Your task to perform on an android device: Check the weather Image 0: 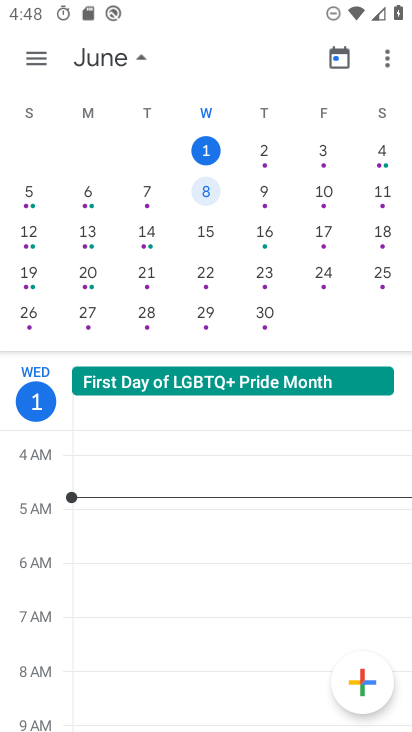
Step 0: press back button
Your task to perform on an android device: Check the weather Image 1: 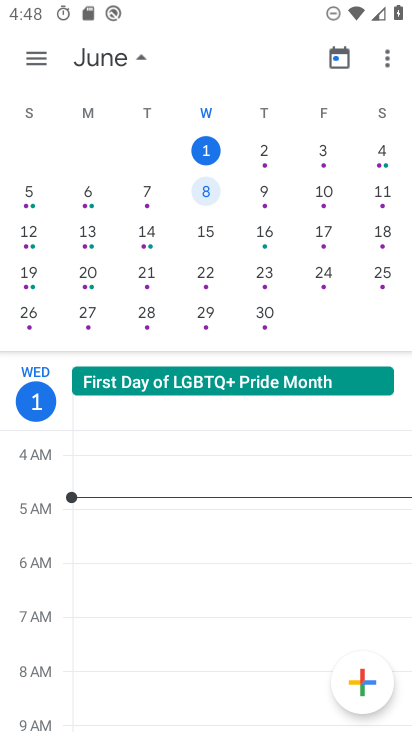
Step 1: press back button
Your task to perform on an android device: Check the weather Image 2: 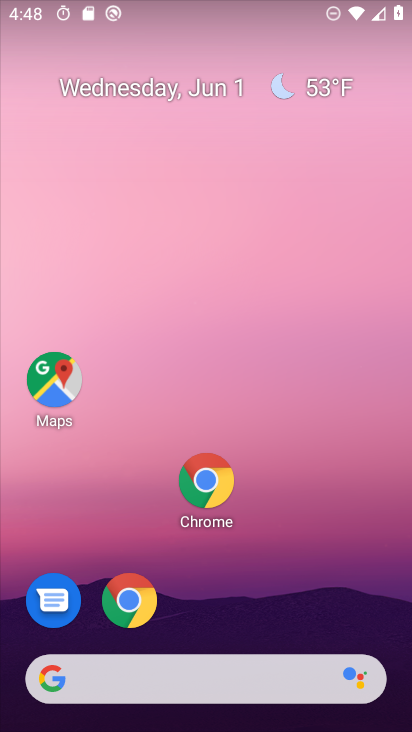
Step 2: drag from (177, 550) to (97, 12)
Your task to perform on an android device: Check the weather Image 3: 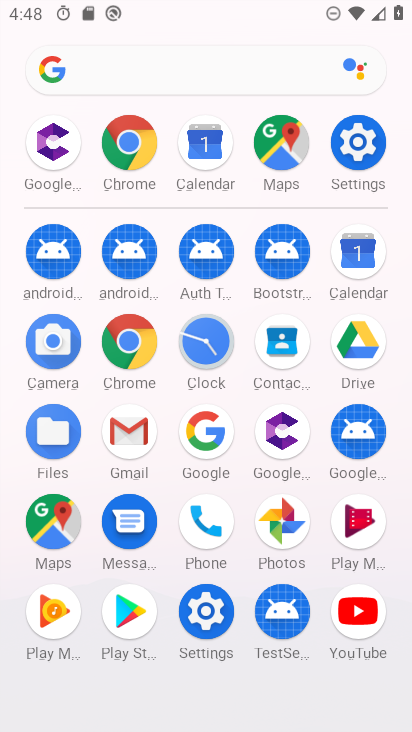
Step 3: drag from (218, 581) to (189, 21)
Your task to perform on an android device: Check the weather Image 4: 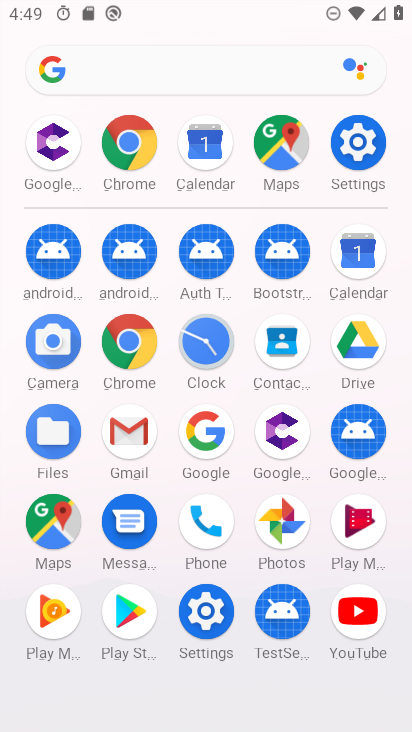
Step 4: press home button
Your task to perform on an android device: Check the weather Image 5: 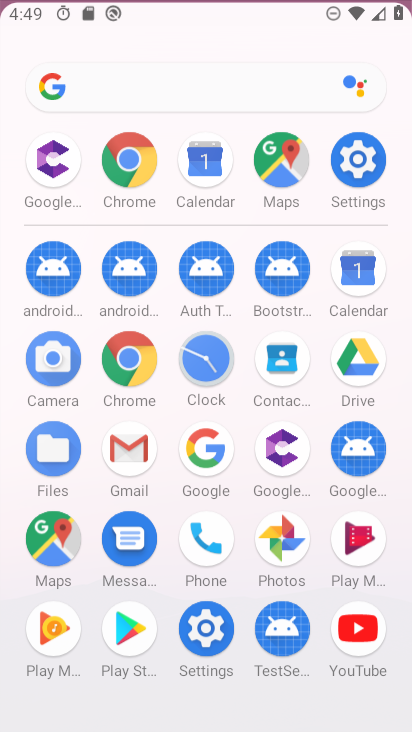
Step 5: press home button
Your task to perform on an android device: Check the weather Image 6: 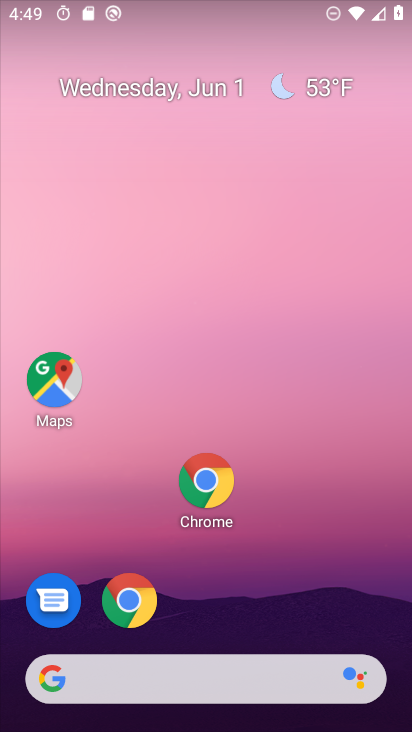
Step 6: press home button
Your task to perform on an android device: Check the weather Image 7: 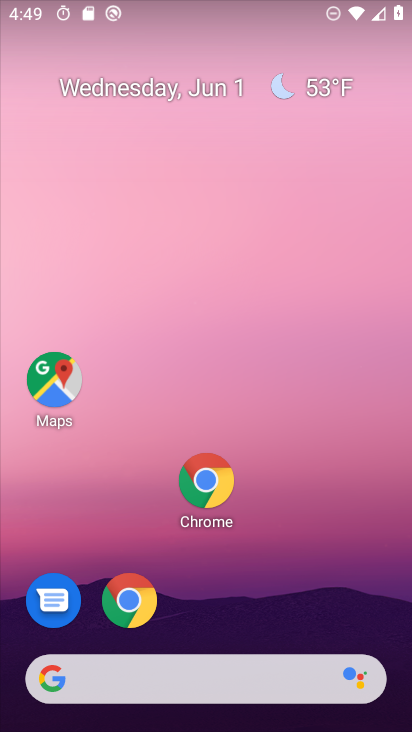
Step 7: drag from (5, 187) to (399, 382)
Your task to perform on an android device: Check the weather Image 8: 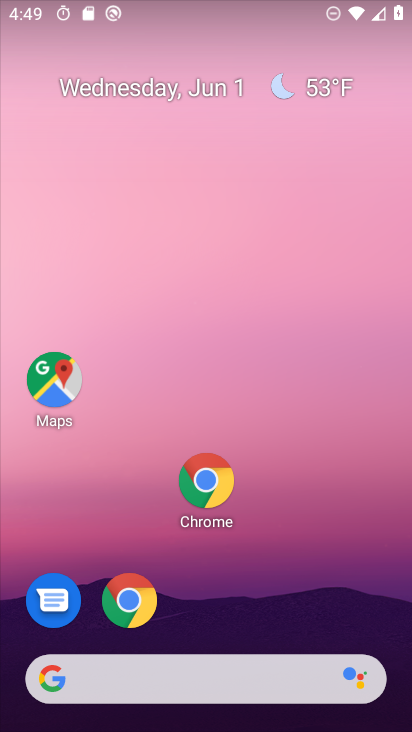
Step 8: drag from (1, 220) to (389, 400)
Your task to perform on an android device: Check the weather Image 9: 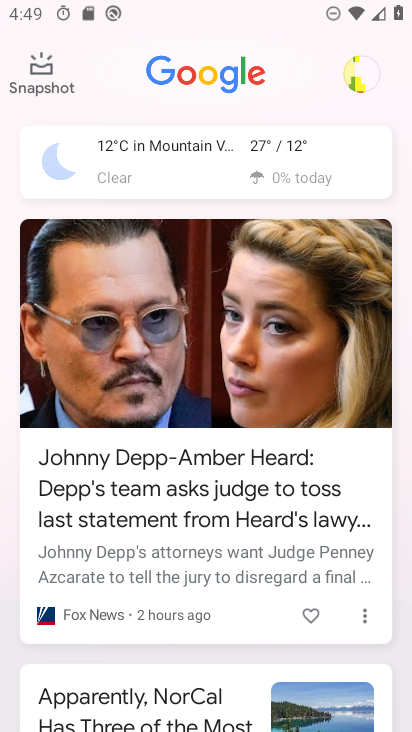
Step 9: drag from (178, 496) to (142, 161)
Your task to perform on an android device: Check the weather Image 10: 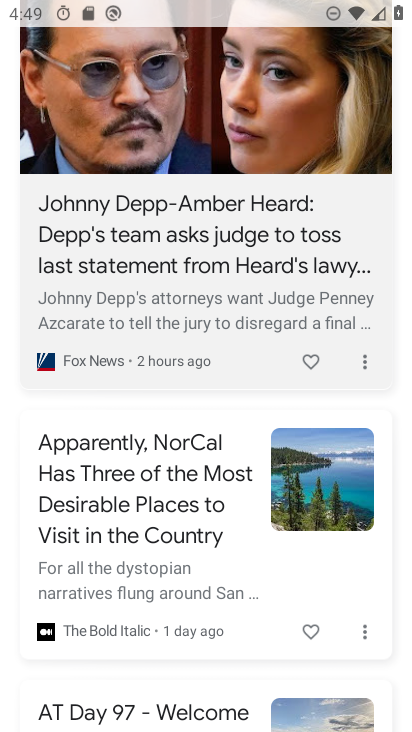
Step 10: drag from (196, 484) to (177, 167)
Your task to perform on an android device: Check the weather Image 11: 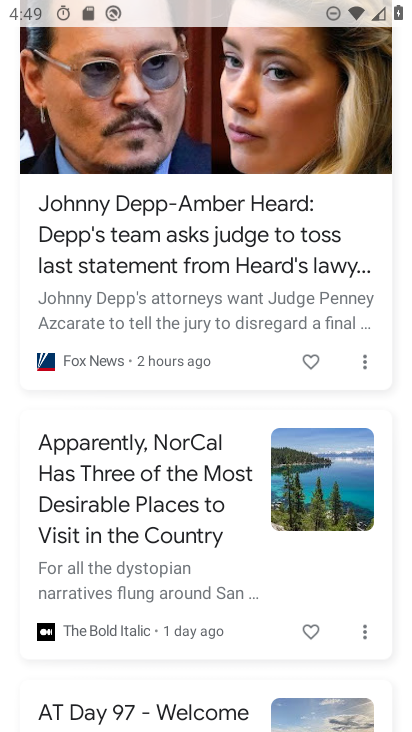
Step 11: drag from (204, 402) to (154, 150)
Your task to perform on an android device: Check the weather Image 12: 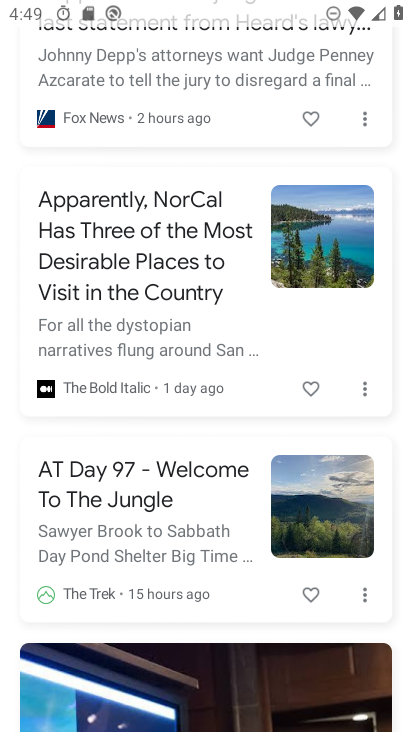
Step 12: drag from (148, 429) to (96, 131)
Your task to perform on an android device: Check the weather Image 13: 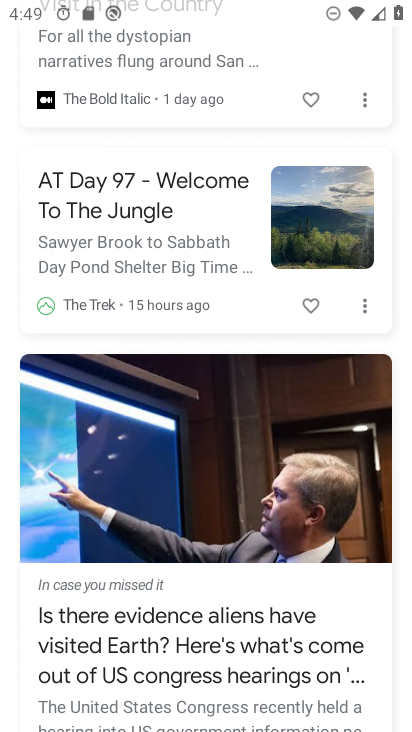
Step 13: drag from (276, 550) to (228, 219)
Your task to perform on an android device: Check the weather Image 14: 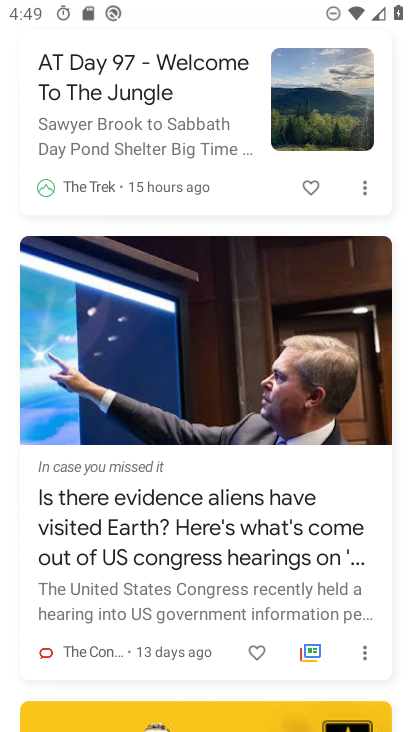
Step 14: drag from (145, 234) to (156, 547)
Your task to perform on an android device: Check the weather Image 15: 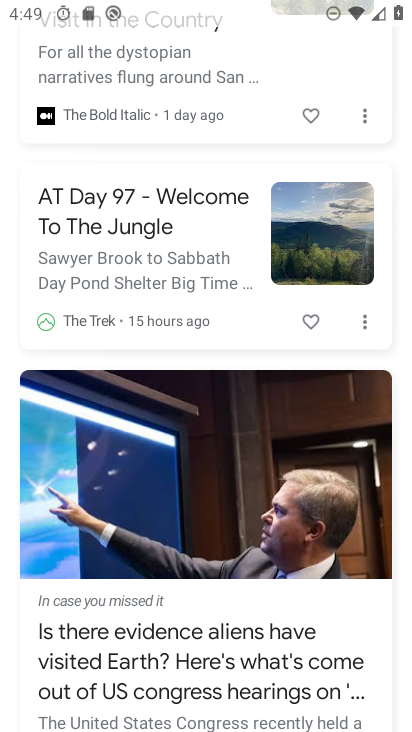
Step 15: drag from (93, 227) to (153, 600)
Your task to perform on an android device: Check the weather Image 16: 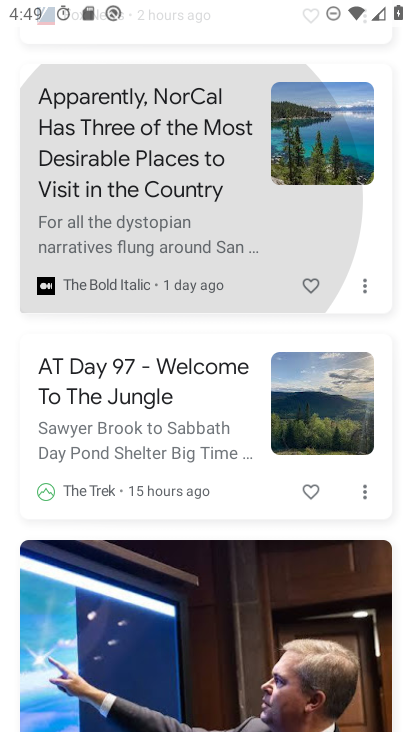
Step 16: drag from (152, 230) to (227, 678)
Your task to perform on an android device: Check the weather Image 17: 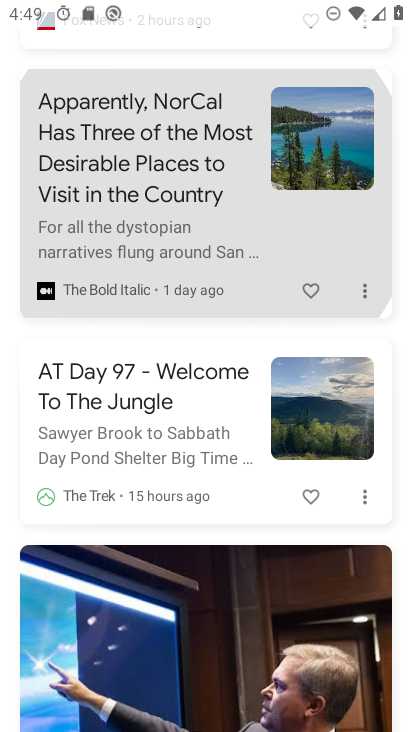
Step 17: drag from (154, 256) to (216, 576)
Your task to perform on an android device: Check the weather Image 18: 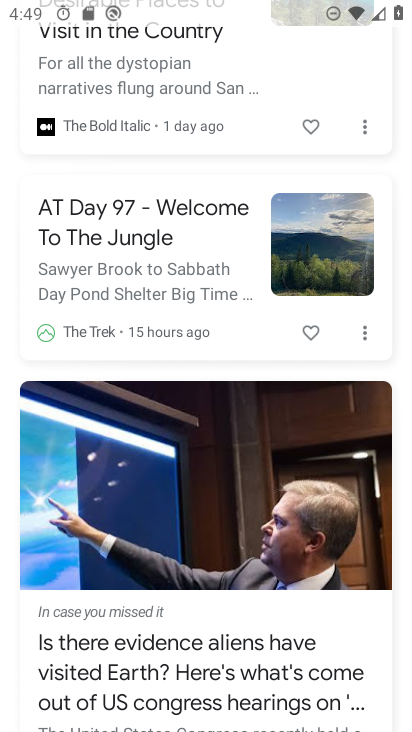
Step 18: drag from (131, 203) to (250, 604)
Your task to perform on an android device: Check the weather Image 19: 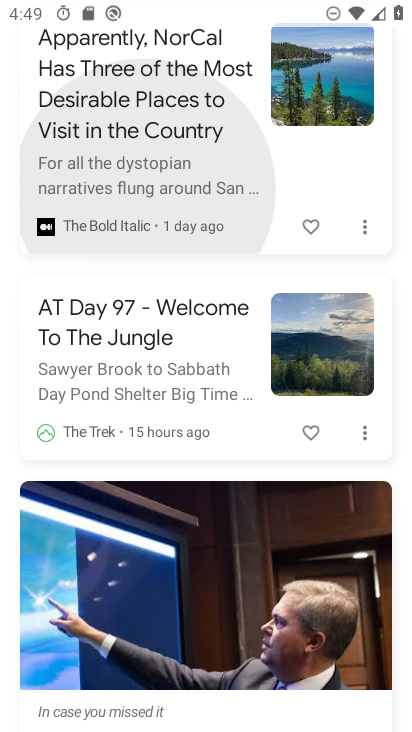
Step 19: drag from (222, 137) to (255, 660)
Your task to perform on an android device: Check the weather Image 20: 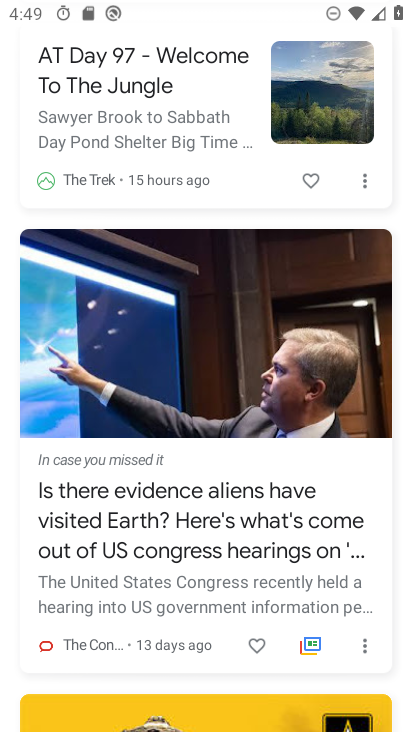
Step 20: drag from (116, 135) to (194, 527)
Your task to perform on an android device: Check the weather Image 21: 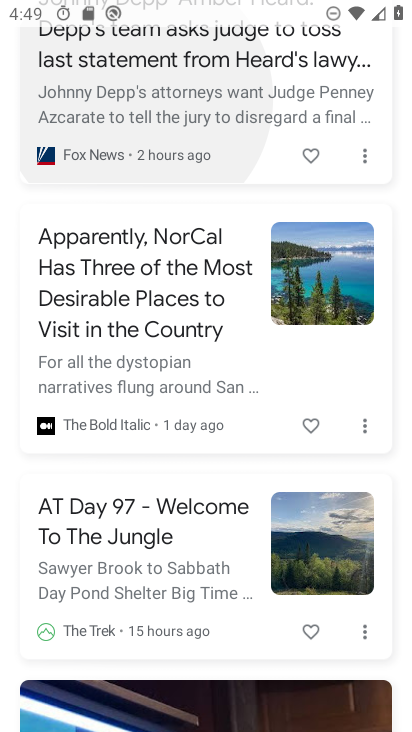
Step 21: drag from (227, 189) to (227, 497)
Your task to perform on an android device: Check the weather Image 22: 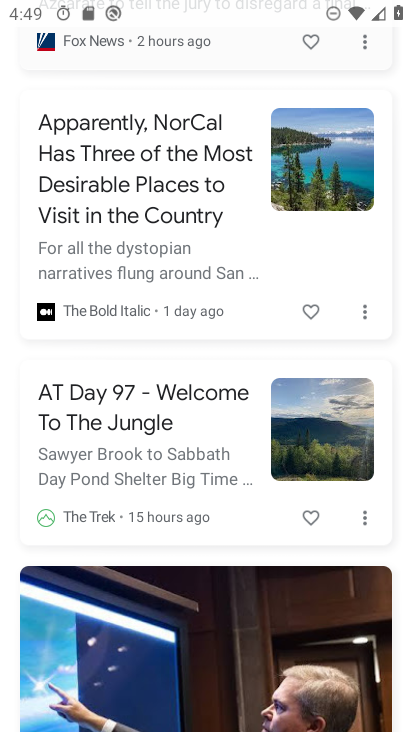
Step 22: drag from (159, 196) to (296, 521)
Your task to perform on an android device: Check the weather Image 23: 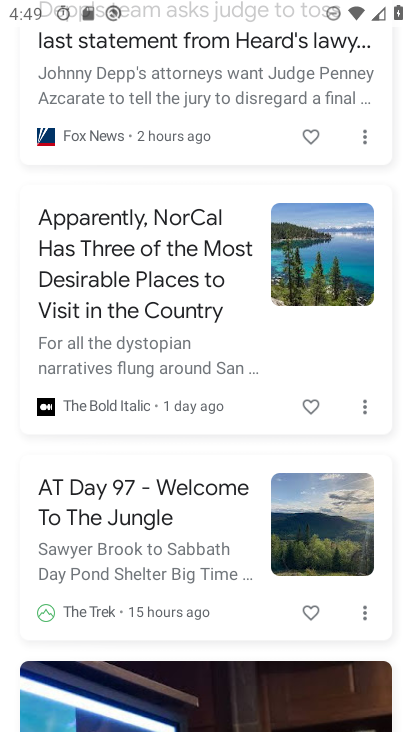
Step 23: drag from (155, 305) to (211, 482)
Your task to perform on an android device: Check the weather Image 24: 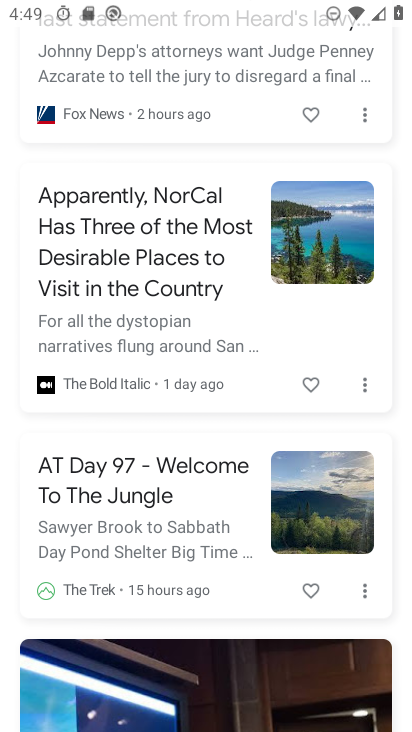
Step 24: drag from (210, 256) to (240, 529)
Your task to perform on an android device: Check the weather Image 25: 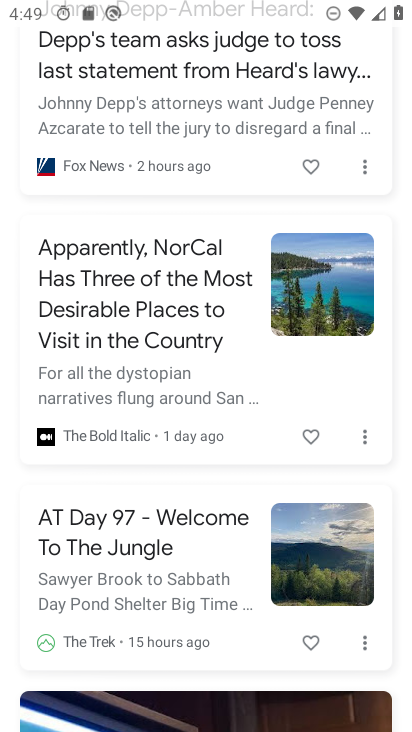
Step 25: drag from (180, 211) to (201, 479)
Your task to perform on an android device: Check the weather Image 26: 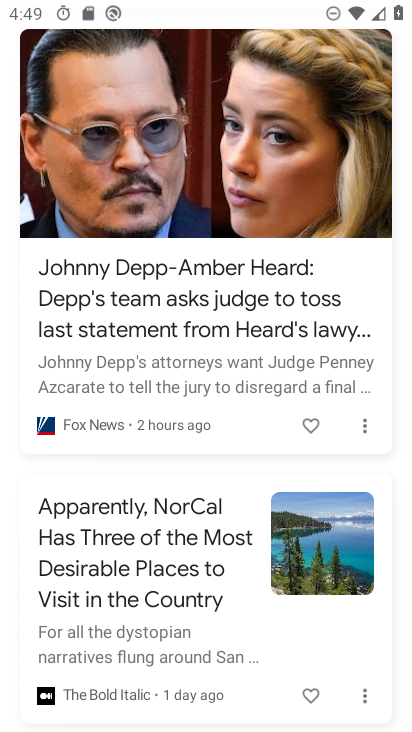
Step 26: click (224, 557)
Your task to perform on an android device: Check the weather Image 27: 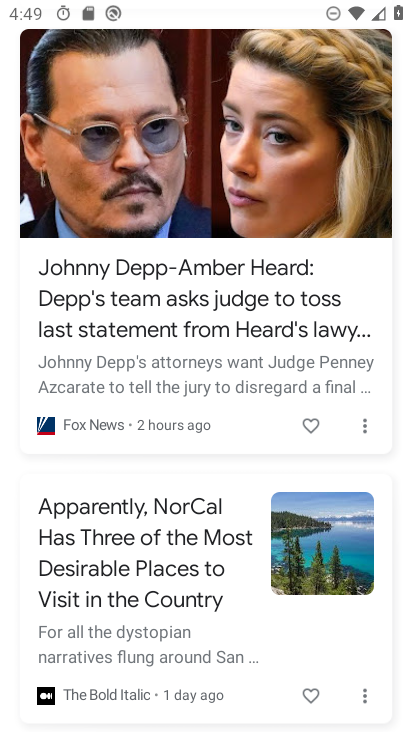
Step 27: drag from (203, 233) to (116, 491)
Your task to perform on an android device: Check the weather Image 28: 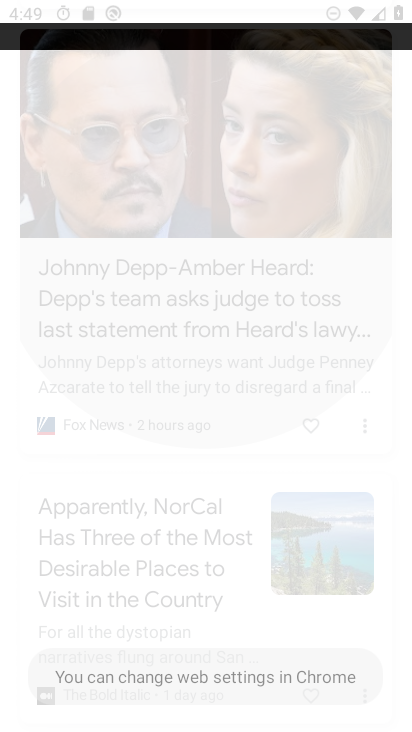
Step 28: click (217, 568)
Your task to perform on an android device: Check the weather Image 29: 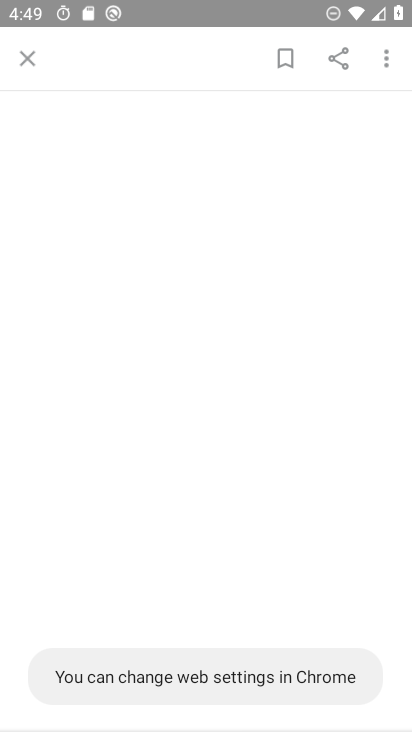
Step 29: task complete